Your task to perform on an android device: turn on notifications settings in the gmail app Image 0: 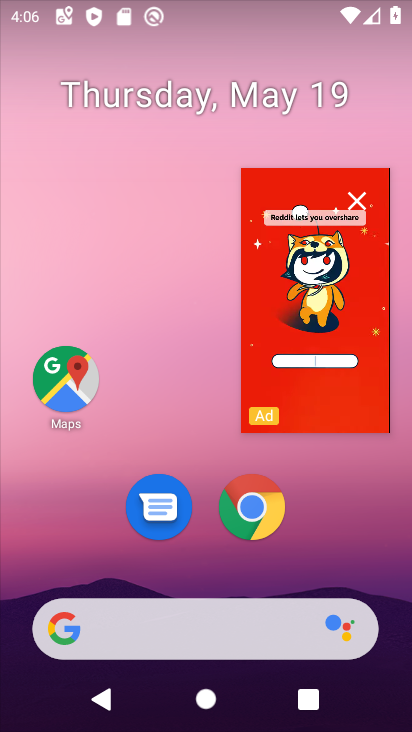
Step 0: click (349, 198)
Your task to perform on an android device: turn on notifications settings in the gmail app Image 1: 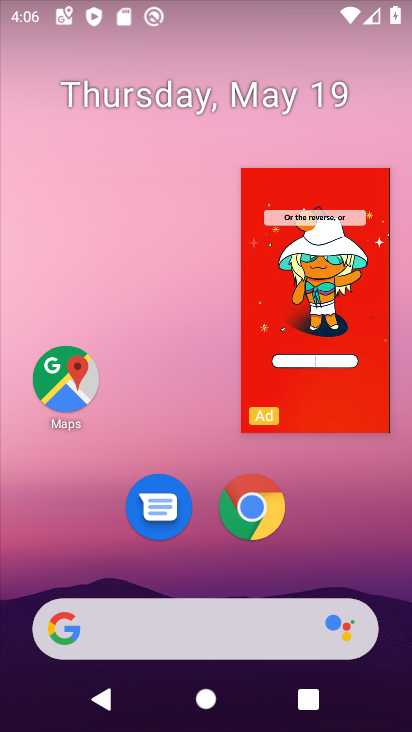
Step 1: click (126, 280)
Your task to perform on an android device: turn on notifications settings in the gmail app Image 2: 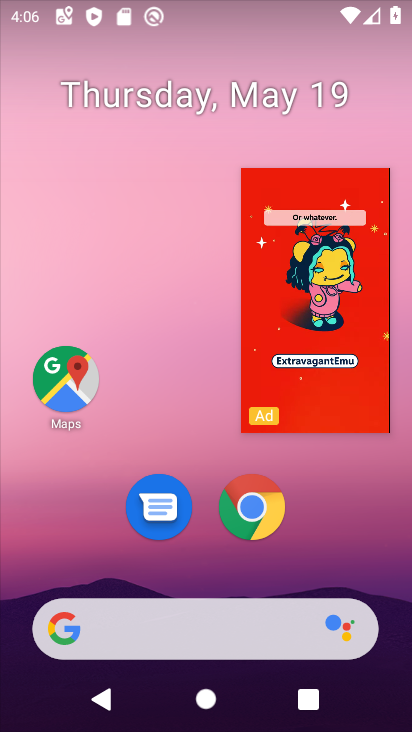
Step 2: click (328, 281)
Your task to perform on an android device: turn on notifications settings in the gmail app Image 3: 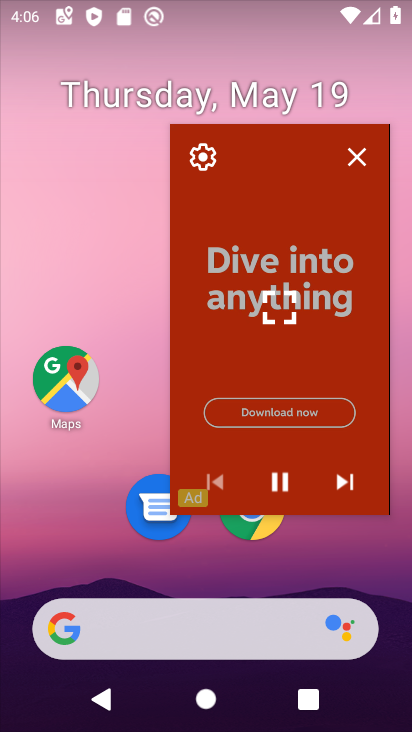
Step 3: click (360, 157)
Your task to perform on an android device: turn on notifications settings in the gmail app Image 4: 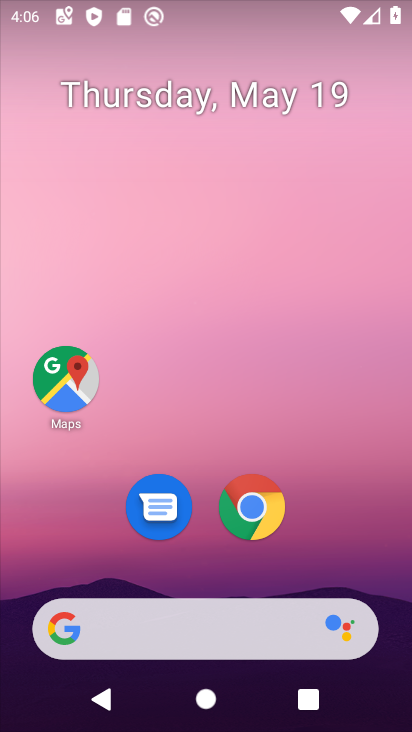
Step 4: drag from (387, 594) to (375, 297)
Your task to perform on an android device: turn on notifications settings in the gmail app Image 5: 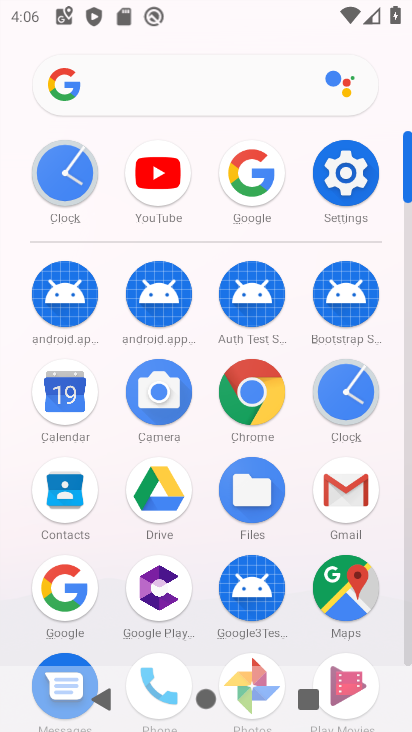
Step 5: click (343, 491)
Your task to perform on an android device: turn on notifications settings in the gmail app Image 6: 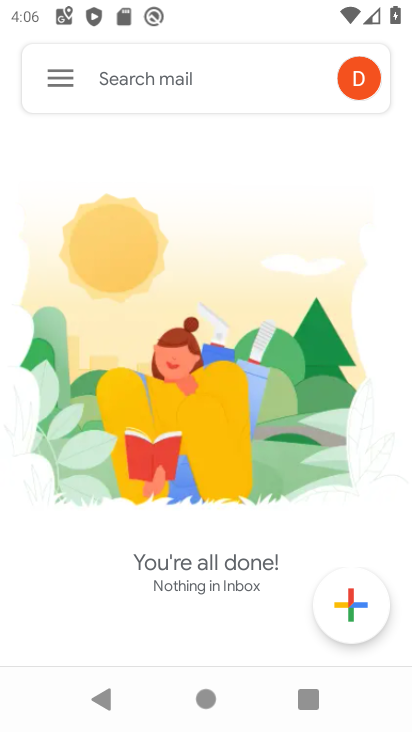
Step 6: click (68, 78)
Your task to perform on an android device: turn on notifications settings in the gmail app Image 7: 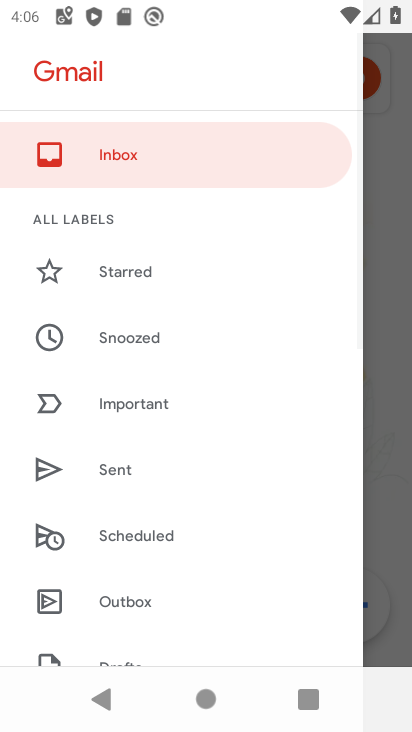
Step 7: drag from (208, 600) to (203, 342)
Your task to perform on an android device: turn on notifications settings in the gmail app Image 8: 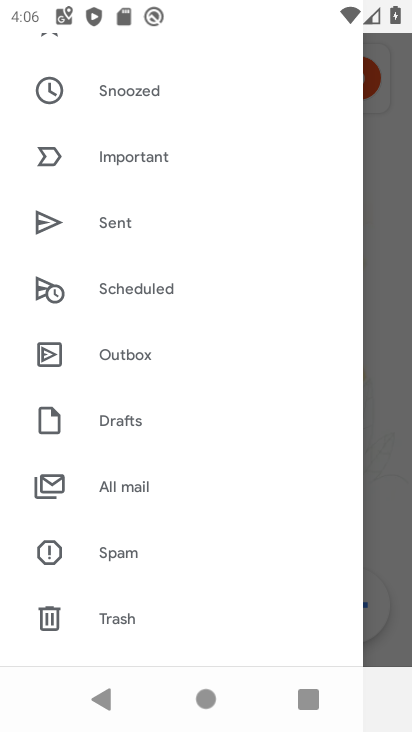
Step 8: drag from (227, 624) to (240, 373)
Your task to perform on an android device: turn on notifications settings in the gmail app Image 9: 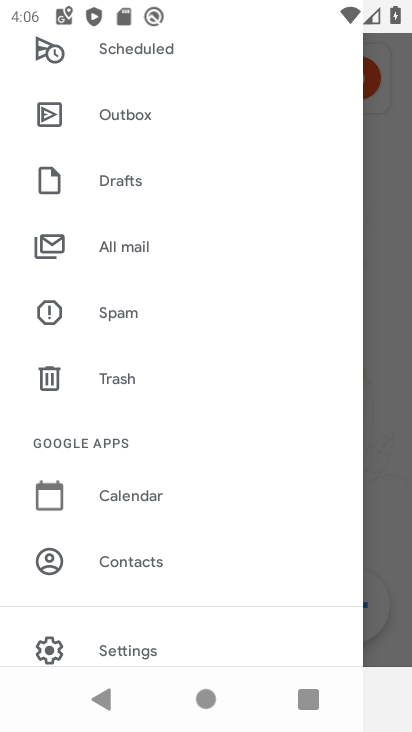
Step 9: click (129, 655)
Your task to perform on an android device: turn on notifications settings in the gmail app Image 10: 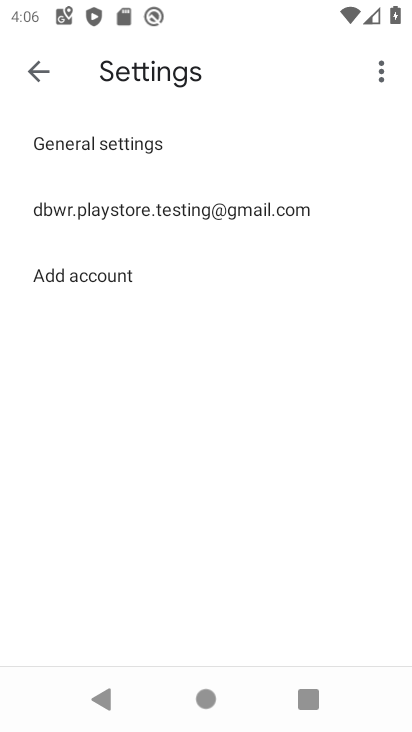
Step 10: click (92, 148)
Your task to perform on an android device: turn on notifications settings in the gmail app Image 11: 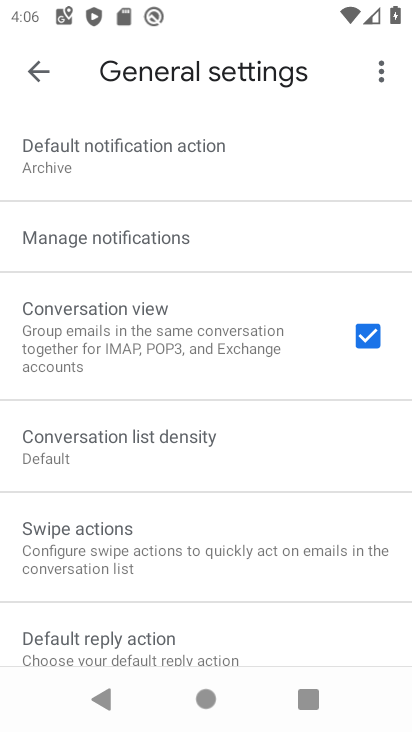
Step 11: click (100, 238)
Your task to perform on an android device: turn on notifications settings in the gmail app Image 12: 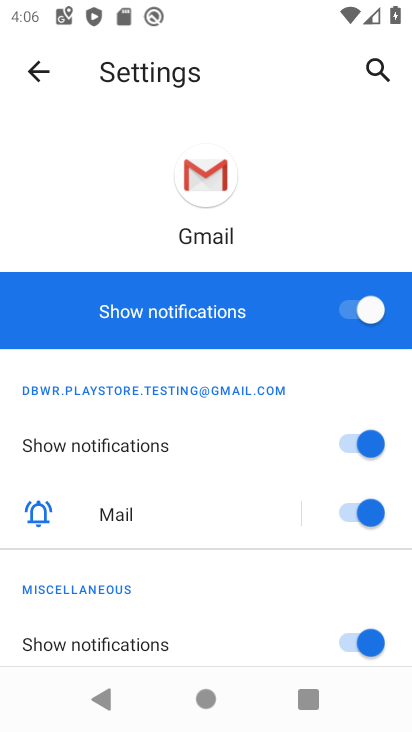
Step 12: task complete